Your task to perform on an android device: Search for flights from Zurich to Buenos aires Image 0: 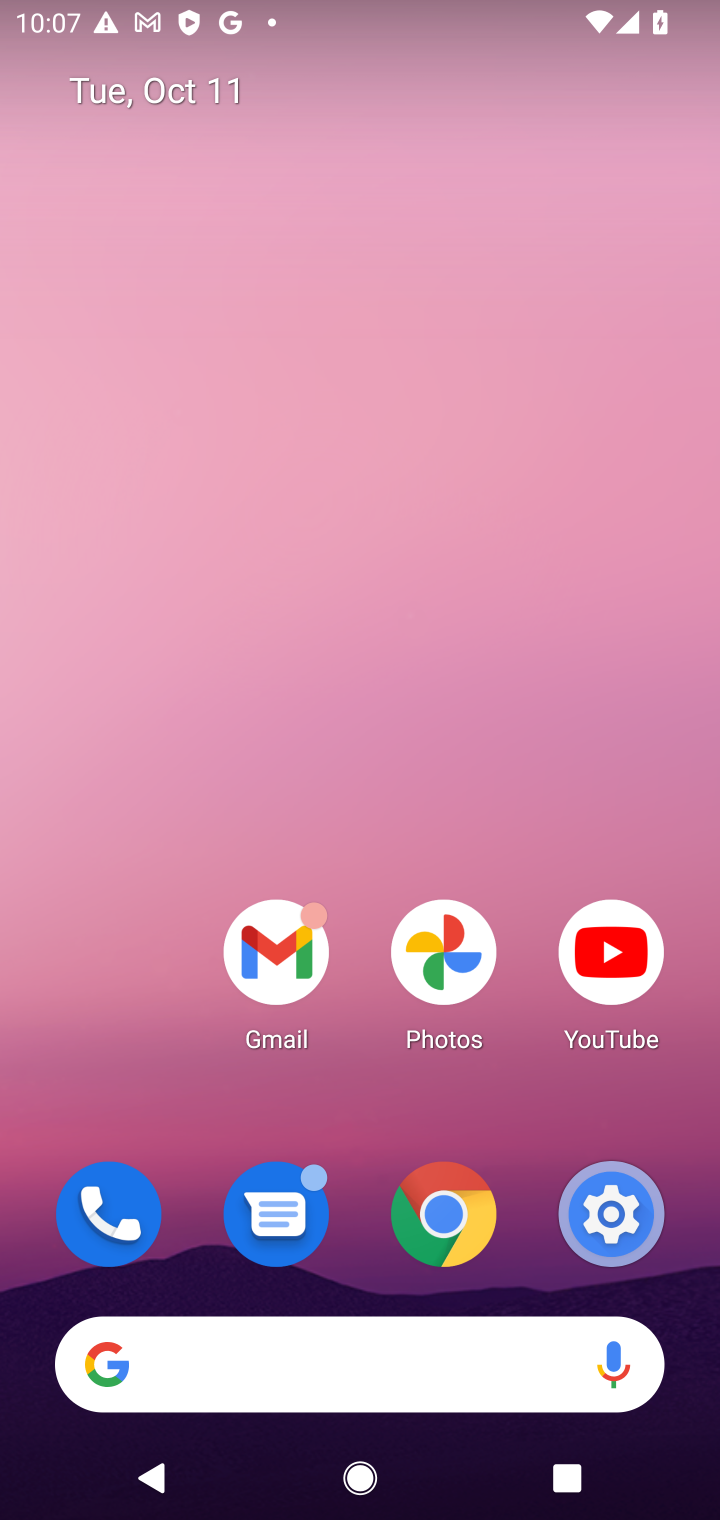
Step 0: drag from (374, 1165) to (367, 97)
Your task to perform on an android device: Search for flights from Zurich to Buenos aires Image 1: 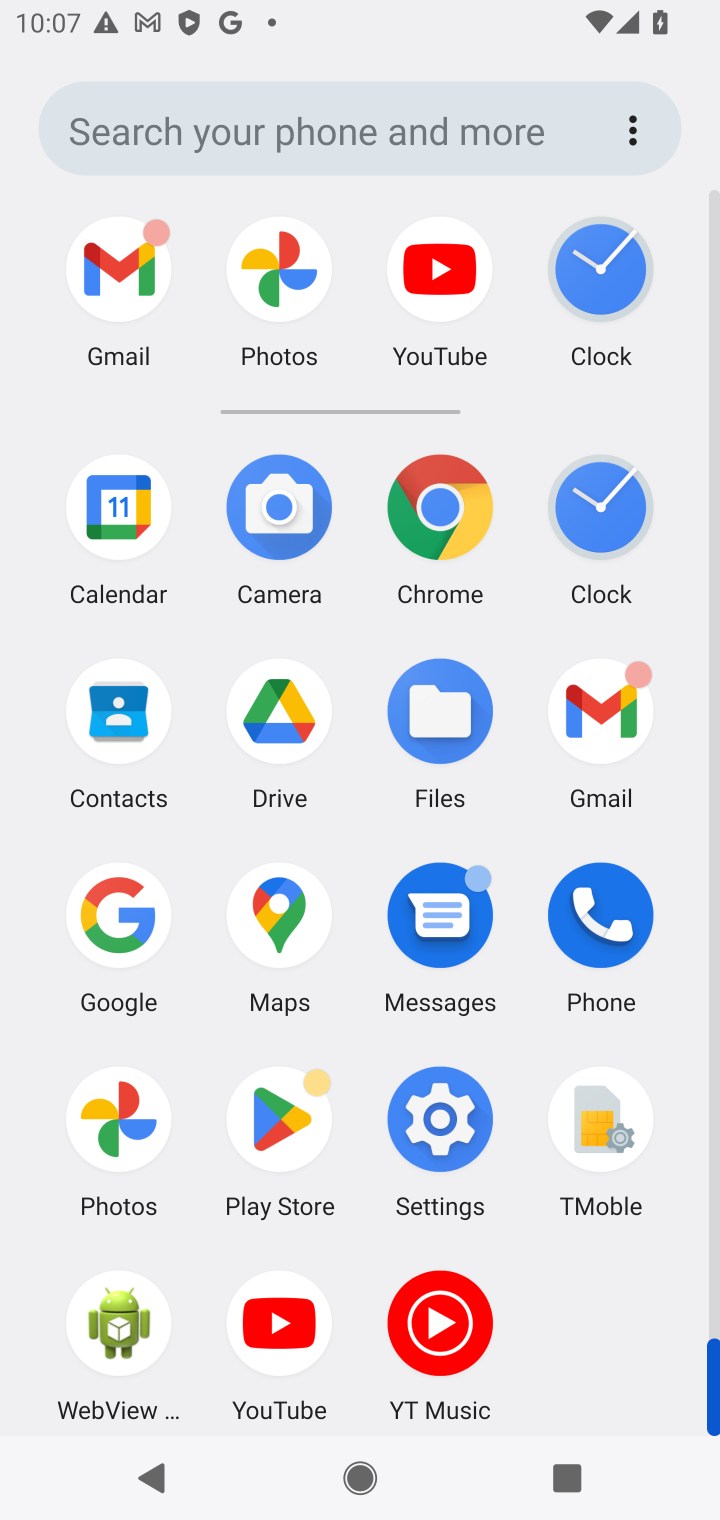
Step 1: click (431, 495)
Your task to perform on an android device: Search for flights from Zurich to Buenos aires Image 2: 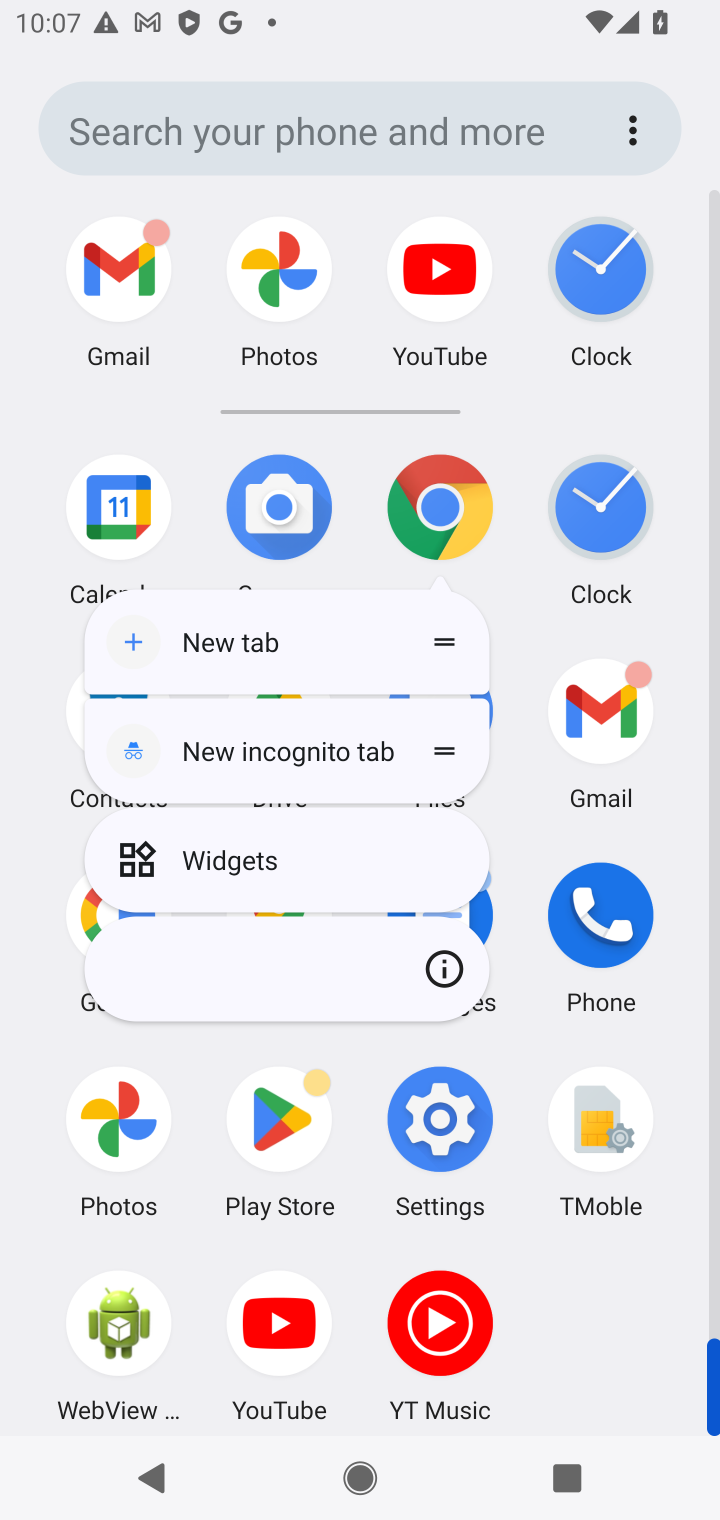
Step 2: click (433, 507)
Your task to perform on an android device: Search for flights from Zurich to Buenos aires Image 3: 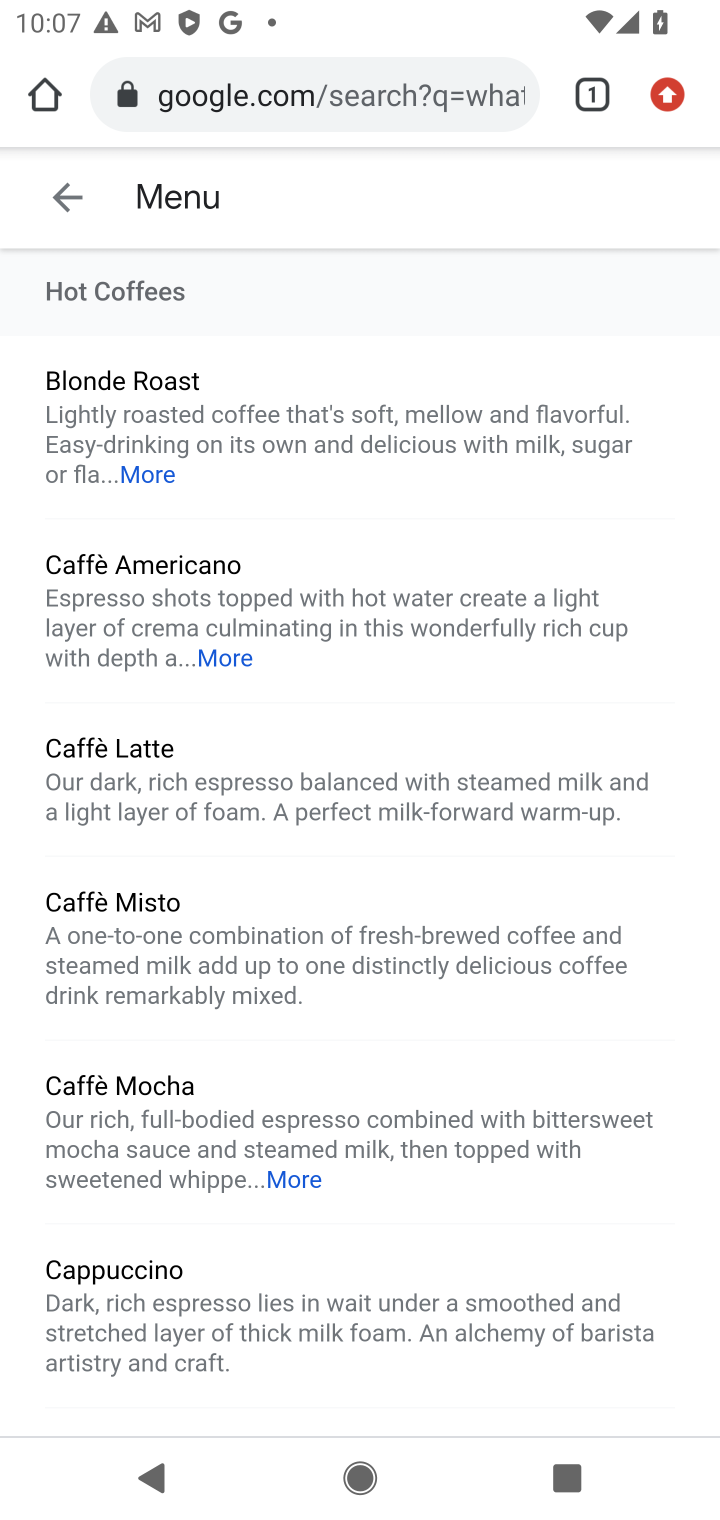
Step 3: press back button
Your task to perform on an android device: Search for flights from Zurich to Buenos aires Image 4: 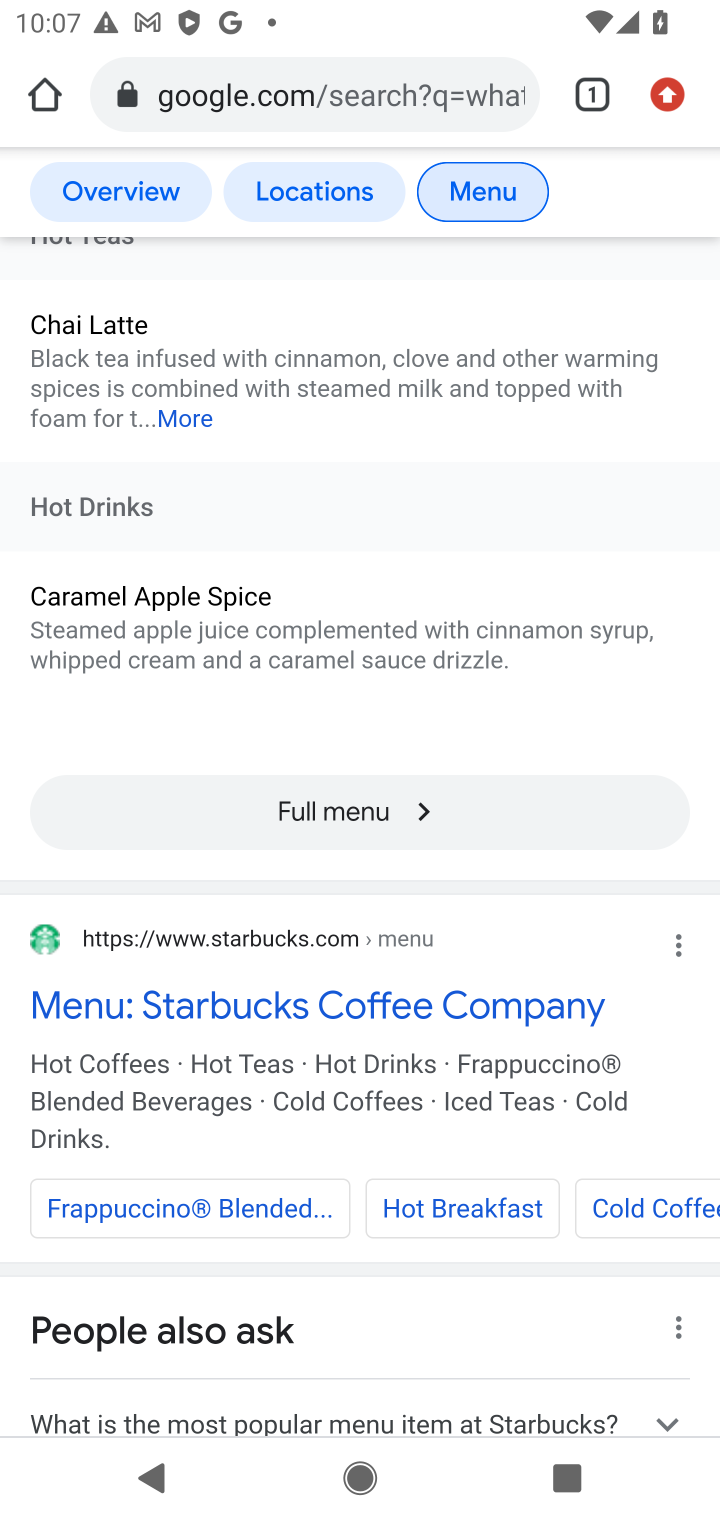
Step 4: click (286, 83)
Your task to perform on an android device: Search for flights from Zurich to Buenos aires Image 5: 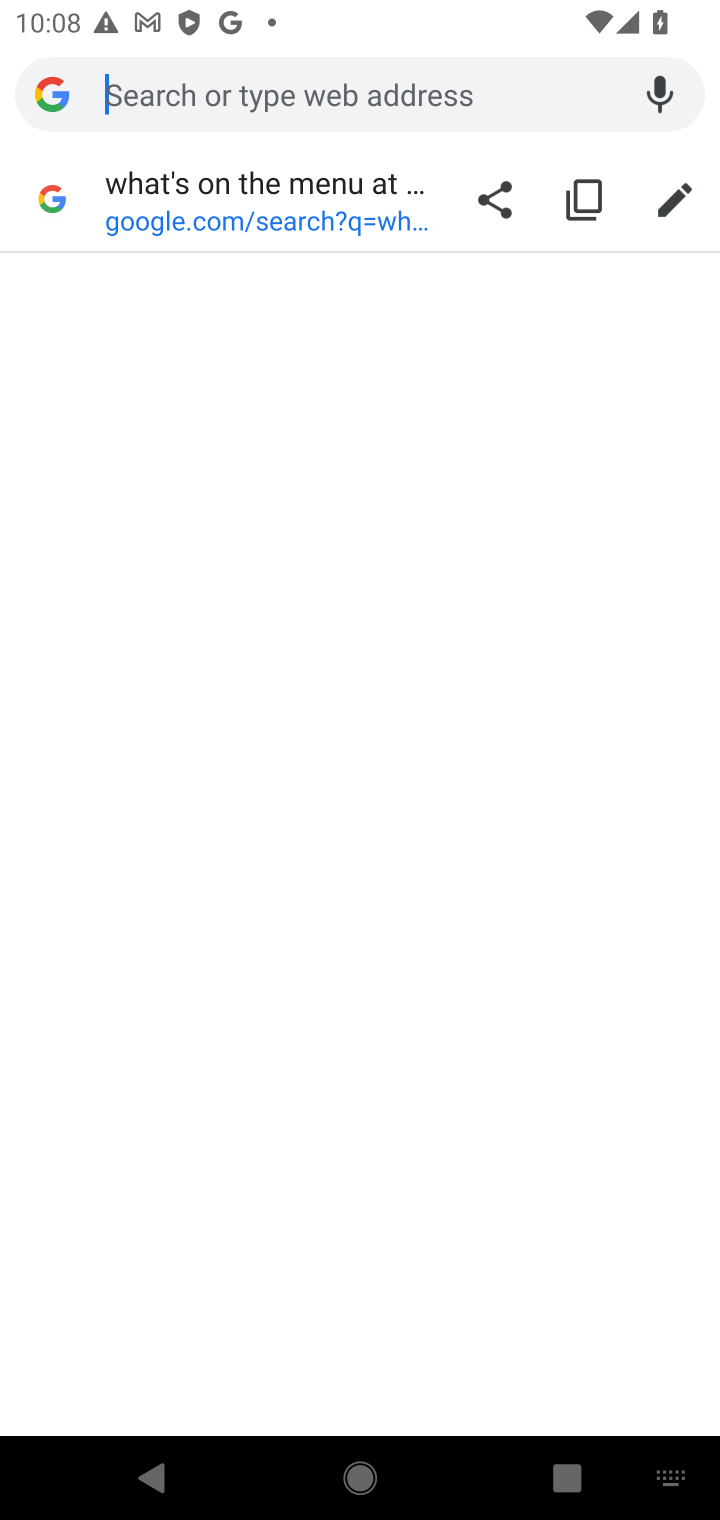
Step 5: type "flights from Zurich to Buenos aires"
Your task to perform on an android device: Search for flights from Zurich to Buenos aires Image 6: 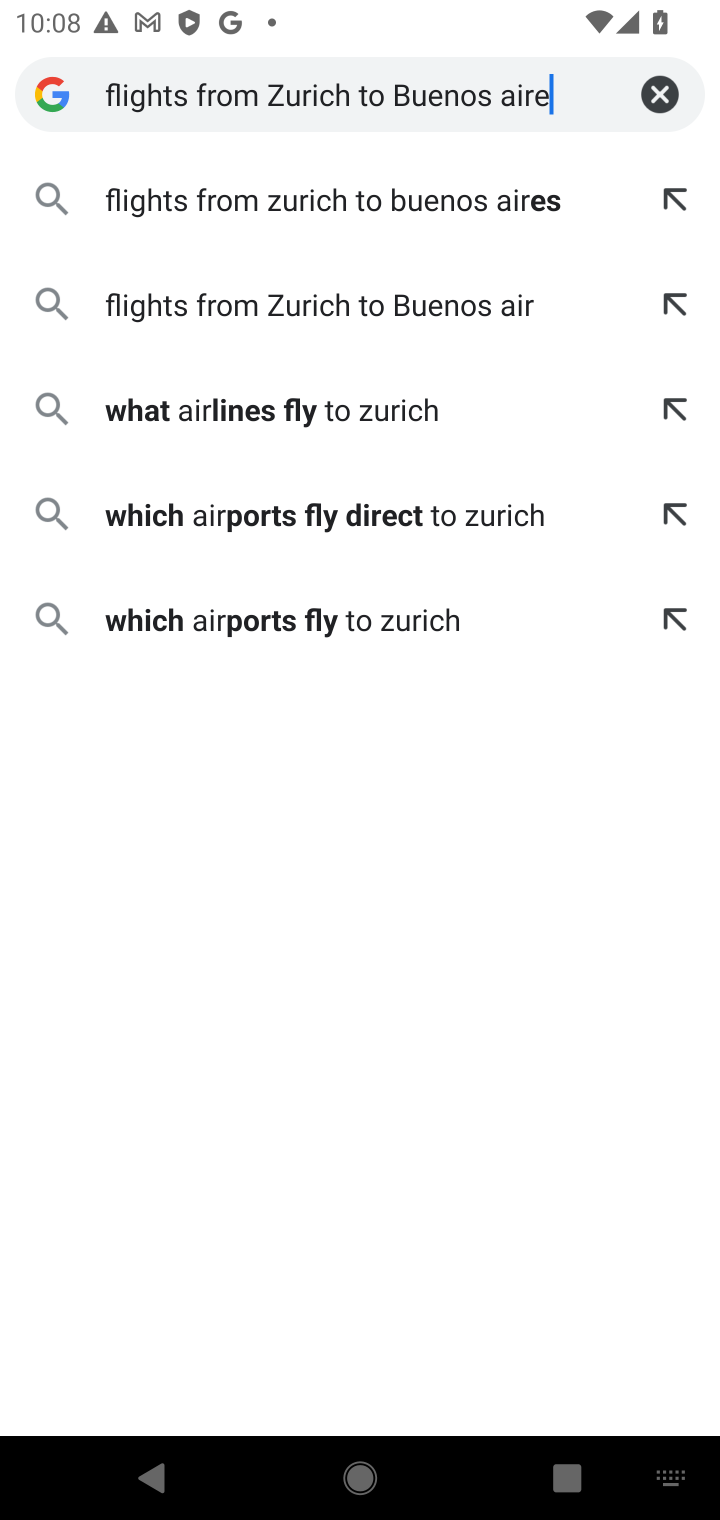
Step 6: press enter
Your task to perform on an android device: Search for flights from Zurich to Buenos aires Image 7: 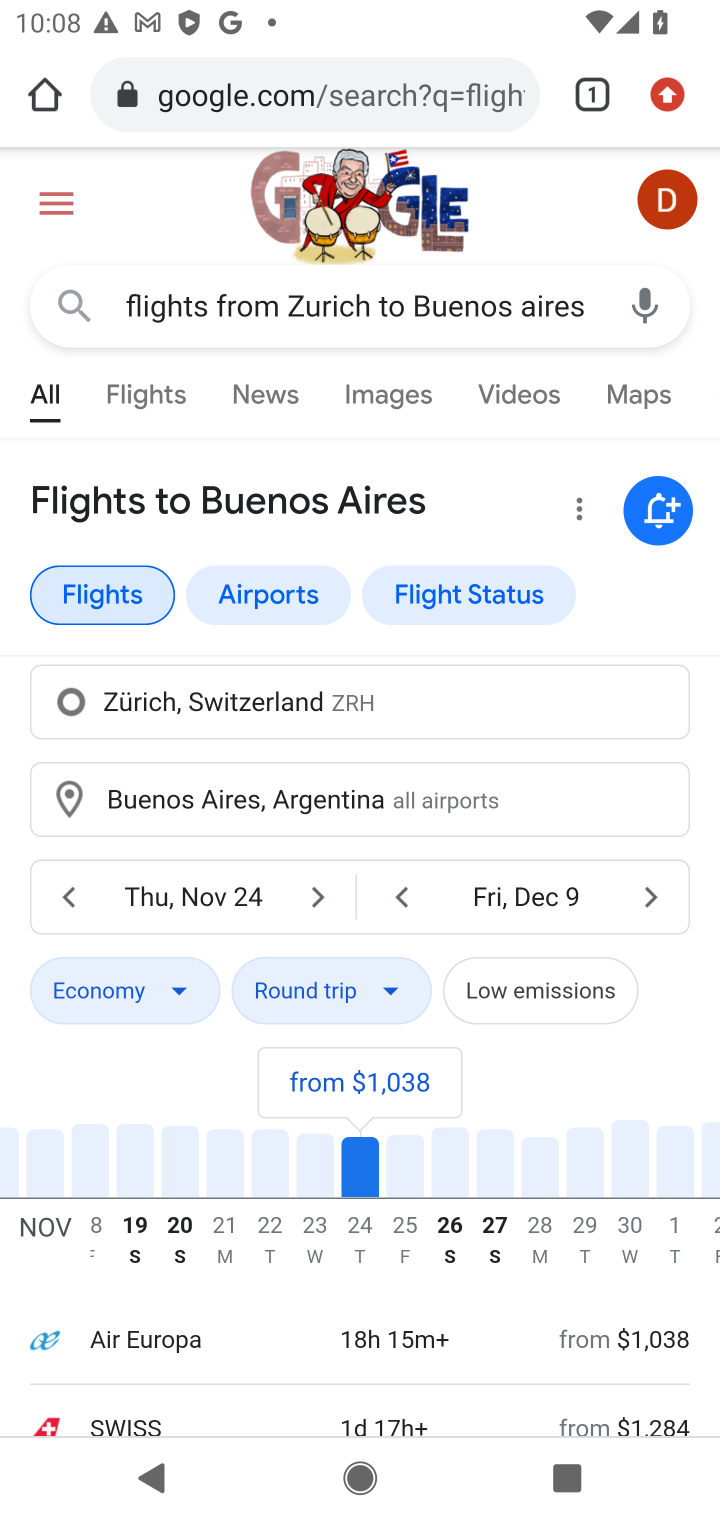
Step 7: task complete